Your task to perform on an android device: snooze an email in the gmail app Image 0: 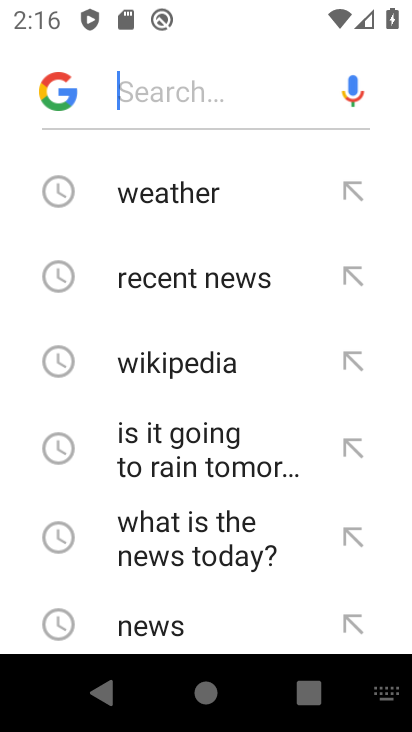
Step 0: press back button
Your task to perform on an android device: snooze an email in the gmail app Image 1: 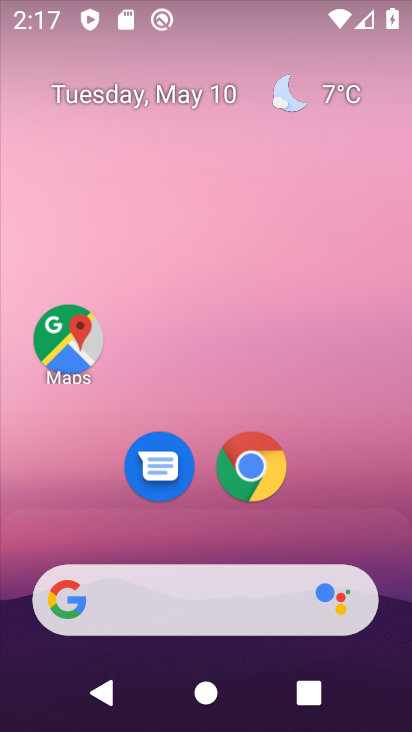
Step 1: drag from (399, 430) to (396, 300)
Your task to perform on an android device: snooze an email in the gmail app Image 2: 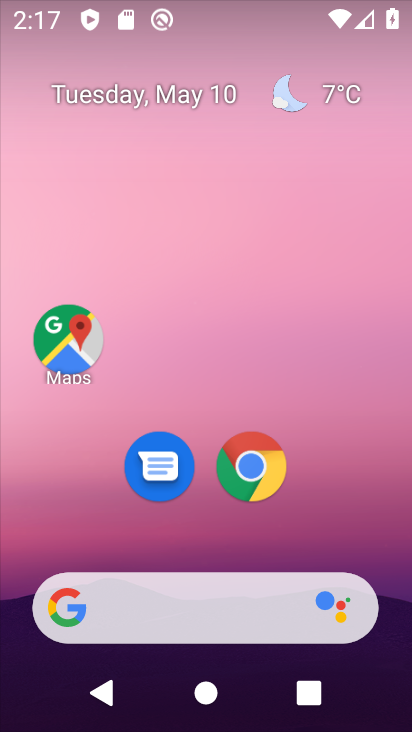
Step 2: click (373, 266)
Your task to perform on an android device: snooze an email in the gmail app Image 3: 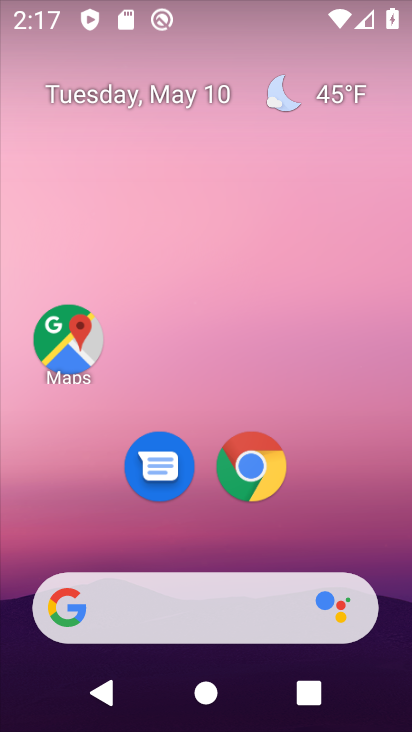
Step 3: drag from (399, 621) to (340, 207)
Your task to perform on an android device: snooze an email in the gmail app Image 4: 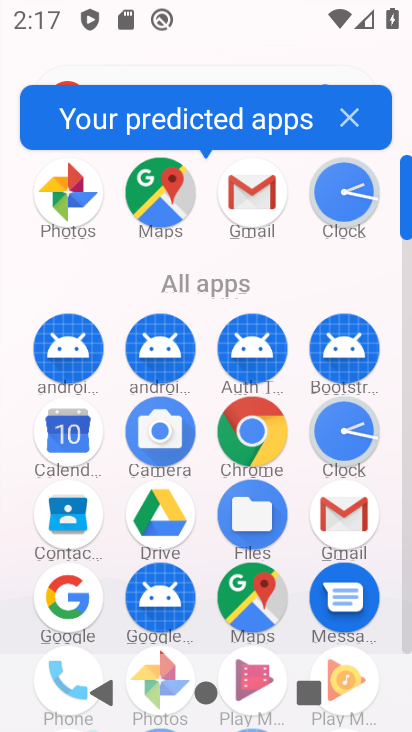
Step 4: click (340, 514)
Your task to perform on an android device: snooze an email in the gmail app Image 5: 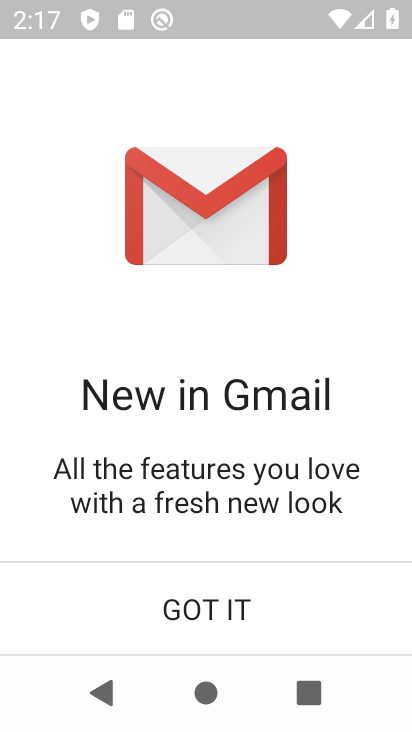
Step 5: click (196, 610)
Your task to perform on an android device: snooze an email in the gmail app Image 6: 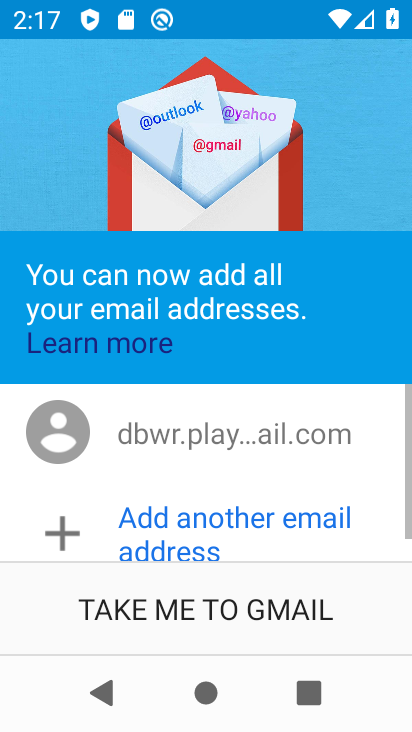
Step 6: click (251, 607)
Your task to perform on an android device: snooze an email in the gmail app Image 7: 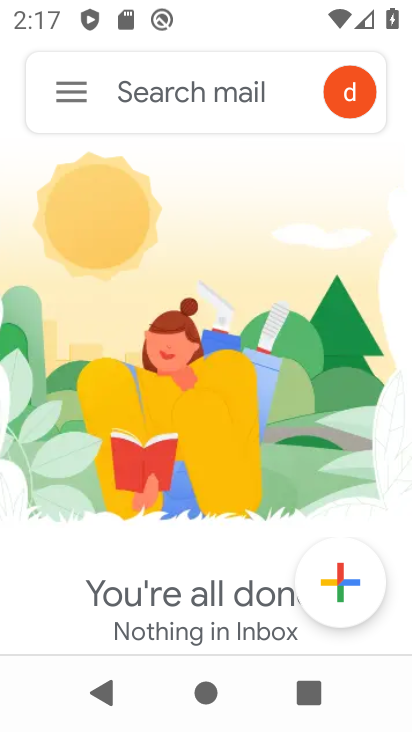
Step 7: click (67, 97)
Your task to perform on an android device: snooze an email in the gmail app Image 8: 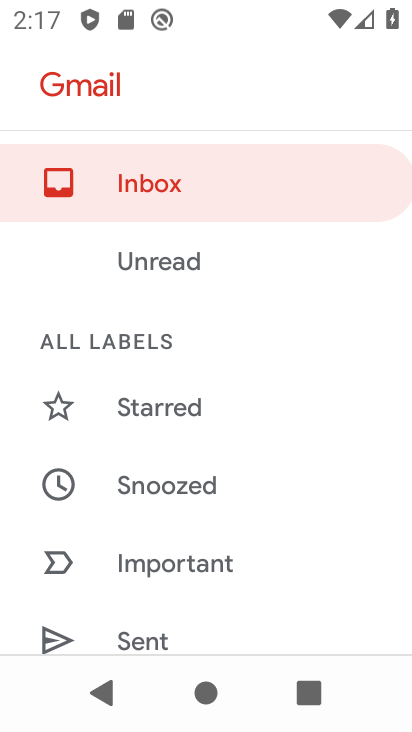
Step 8: click (130, 189)
Your task to perform on an android device: snooze an email in the gmail app Image 9: 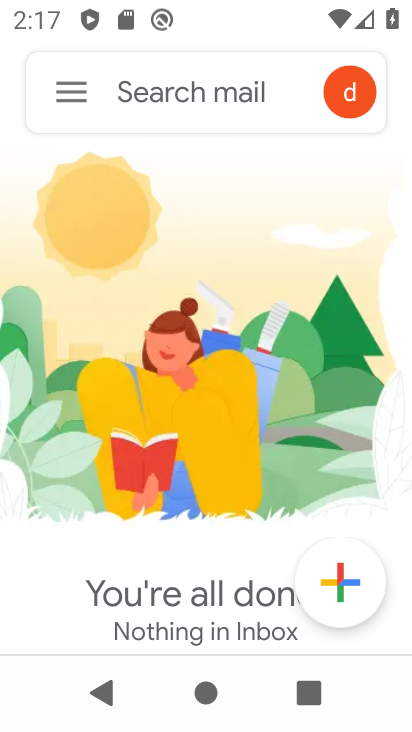
Step 9: task complete